Your task to perform on an android device: turn on the 12-hour format for clock Image 0: 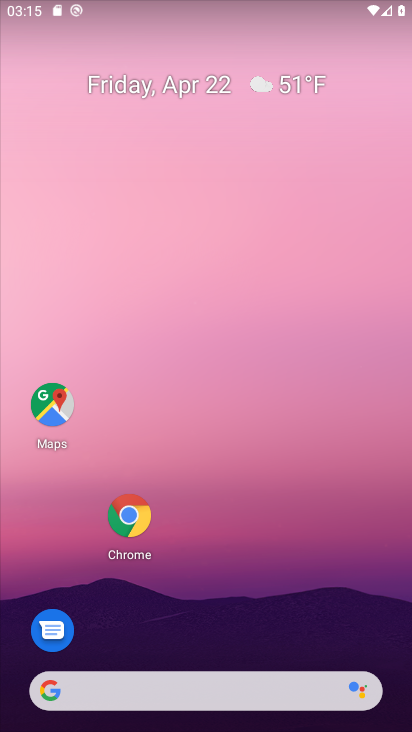
Step 0: click (366, 223)
Your task to perform on an android device: turn on the 12-hour format for clock Image 1: 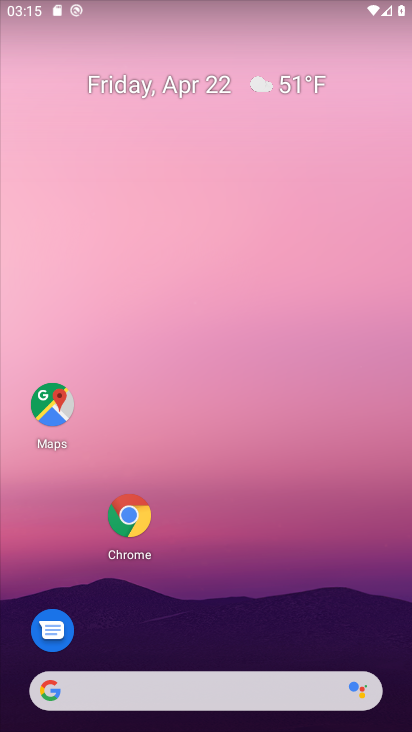
Step 1: drag from (389, 643) to (307, 1)
Your task to perform on an android device: turn on the 12-hour format for clock Image 2: 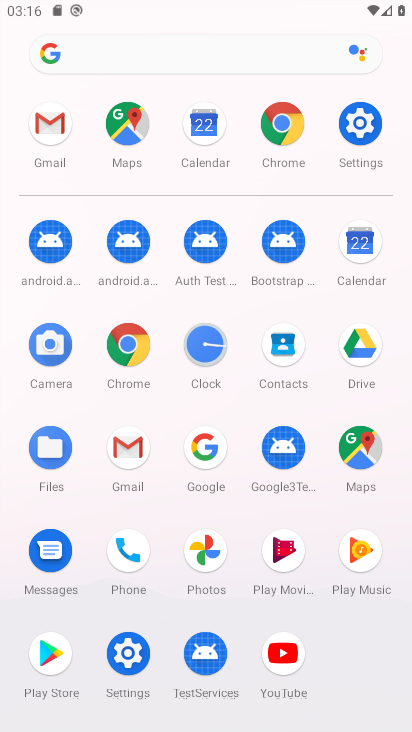
Step 2: click (202, 346)
Your task to perform on an android device: turn on the 12-hour format for clock Image 3: 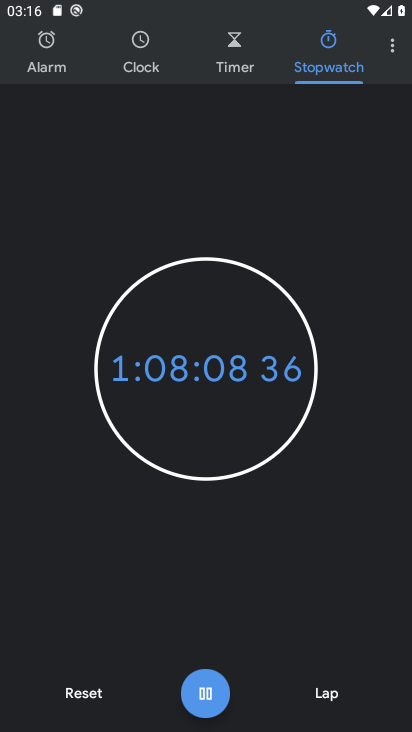
Step 3: click (389, 39)
Your task to perform on an android device: turn on the 12-hour format for clock Image 4: 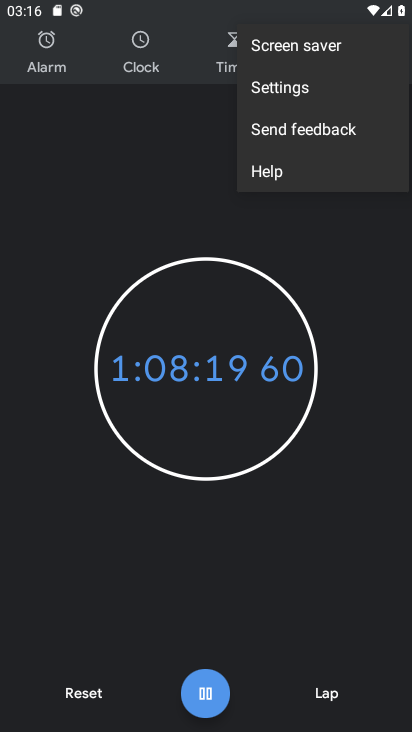
Step 4: click (275, 85)
Your task to perform on an android device: turn on the 12-hour format for clock Image 5: 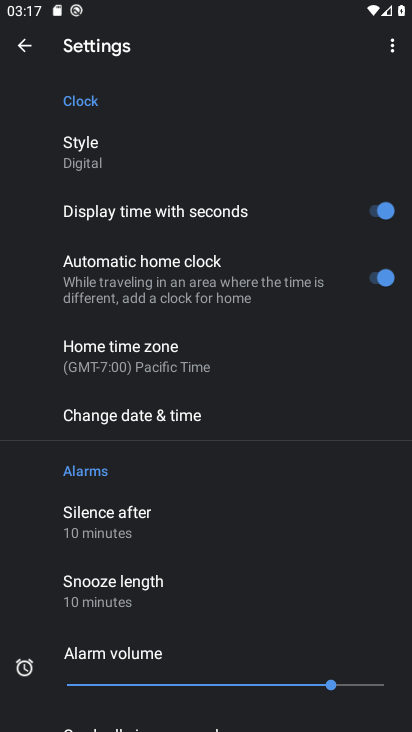
Step 5: drag from (321, 494) to (313, 167)
Your task to perform on an android device: turn on the 12-hour format for clock Image 6: 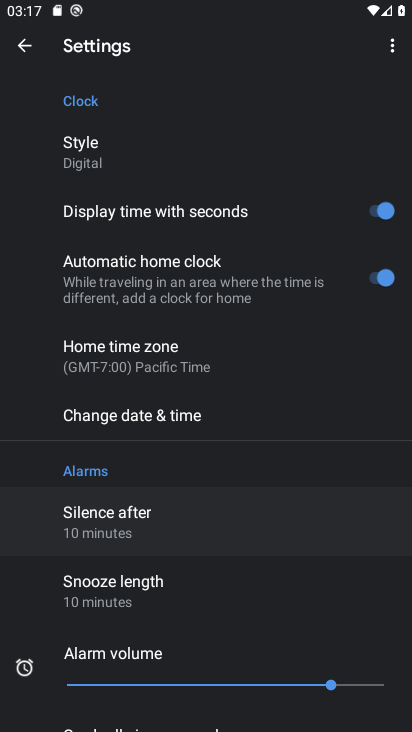
Step 6: click (263, 270)
Your task to perform on an android device: turn on the 12-hour format for clock Image 7: 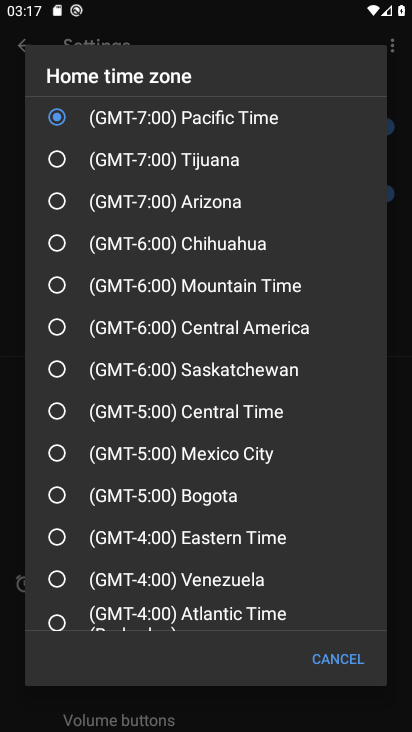
Step 7: press back button
Your task to perform on an android device: turn on the 12-hour format for clock Image 8: 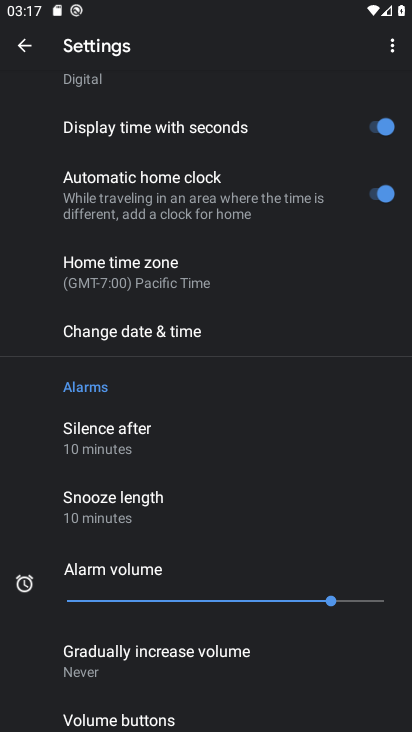
Step 8: click (151, 324)
Your task to perform on an android device: turn on the 12-hour format for clock Image 9: 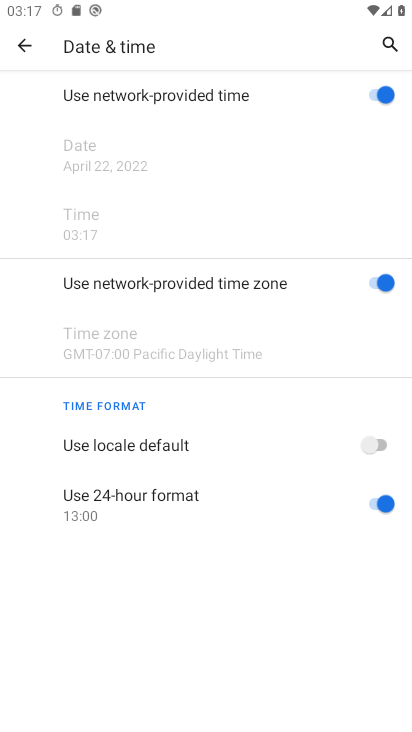
Step 9: task complete